Your task to perform on an android device: install app "Google Maps" Image 0: 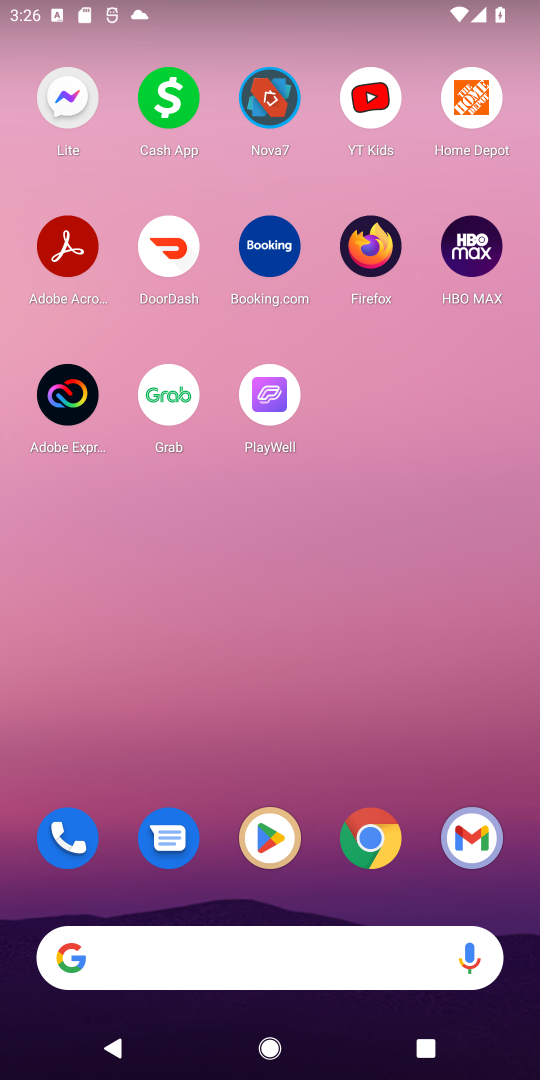
Step 0: click (311, 802)
Your task to perform on an android device: install app "Google Maps" Image 1: 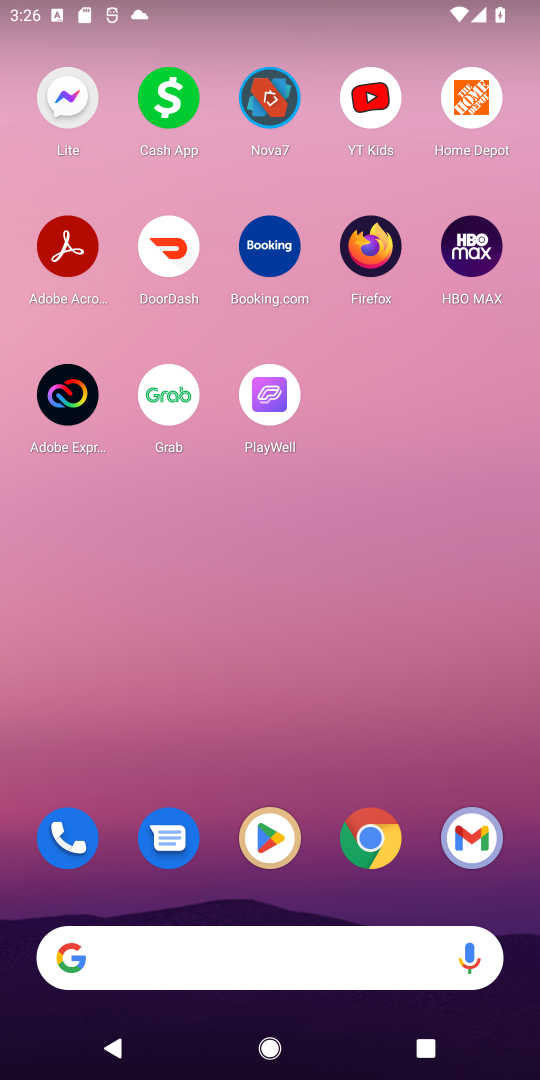
Step 1: click (279, 830)
Your task to perform on an android device: install app "Google Maps" Image 2: 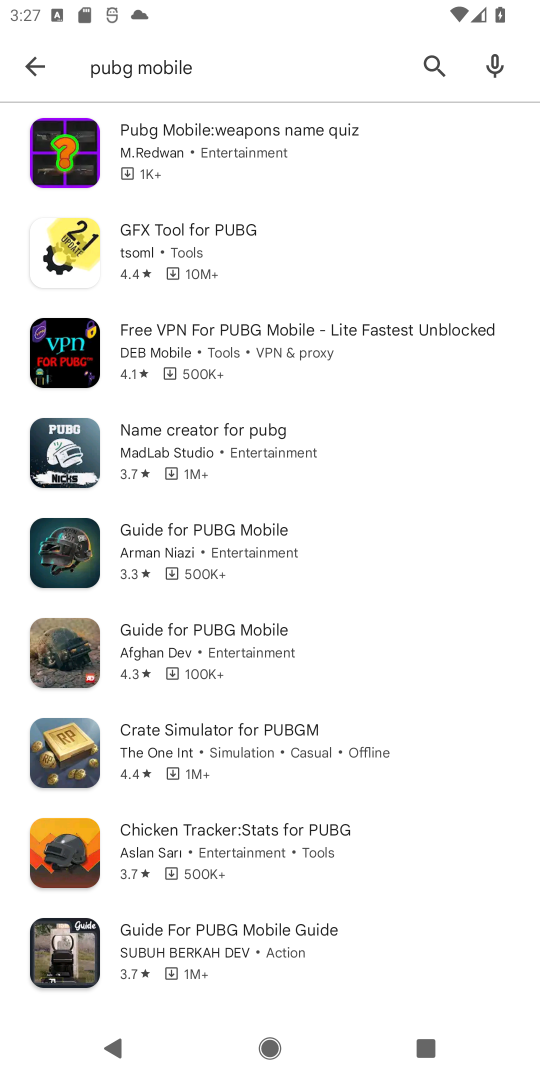
Step 2: click (36, 76)
Your task to perform on an android device: install app "Google Maps" Image 3: 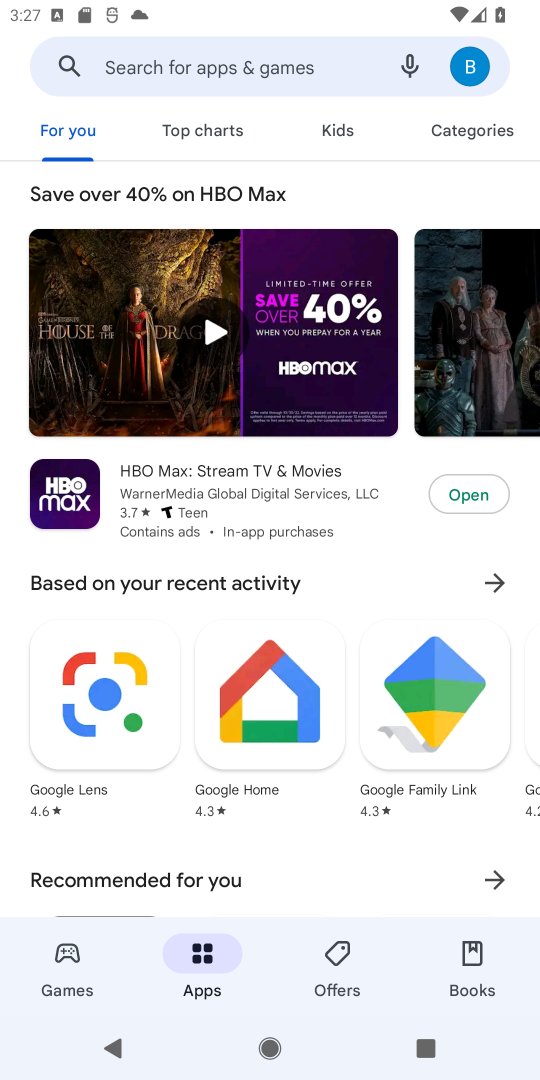
Step 3: click (152, 75)
Your task to perform on an android device: install app "Google Maps" Image 4: 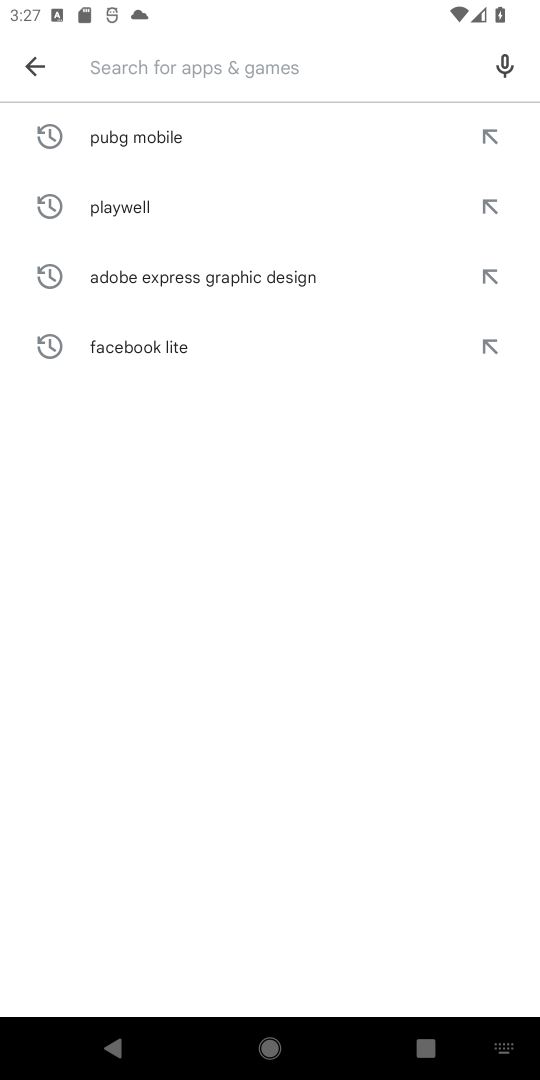
Step 4: type "Google Maps"
Your task to perform on an android device: install app "Google Maps" Image 5: 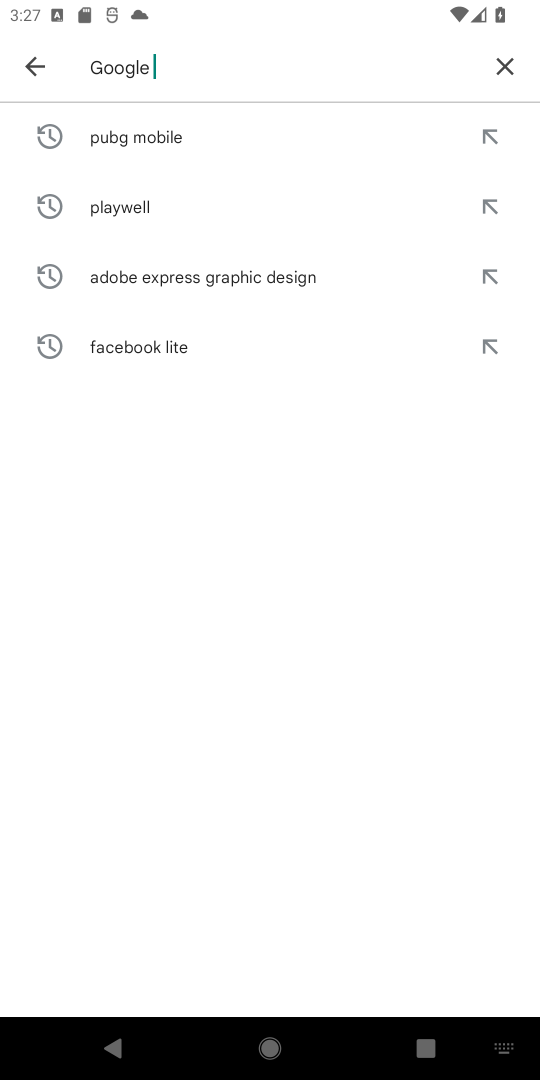
Step 5: type ""
Your task to perform on an android device: install app "Google Maps" Image 6: 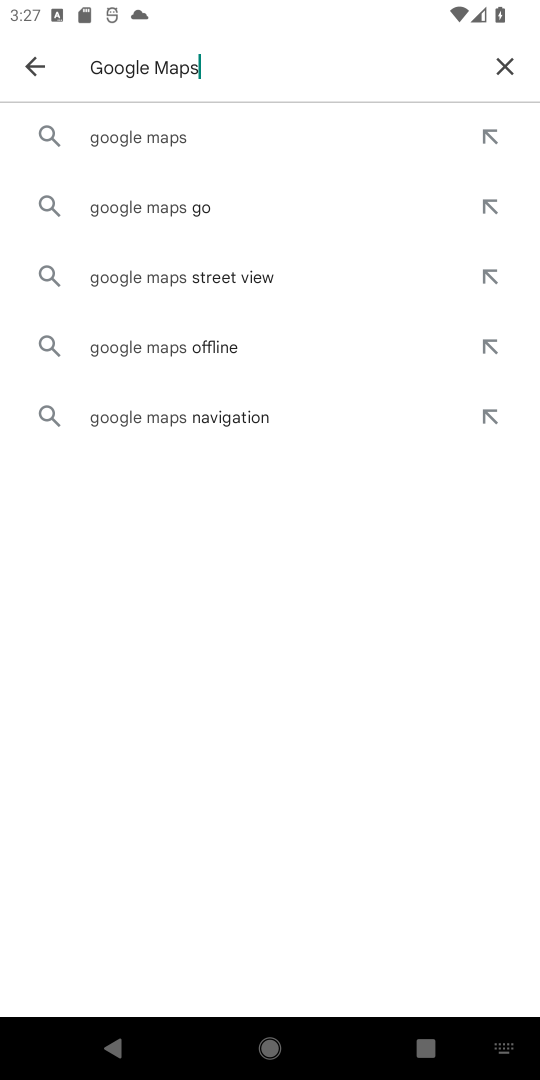
Step 6: click (125, 132)
Your task to perform on an android device: install app "Google Maps" Image 7: 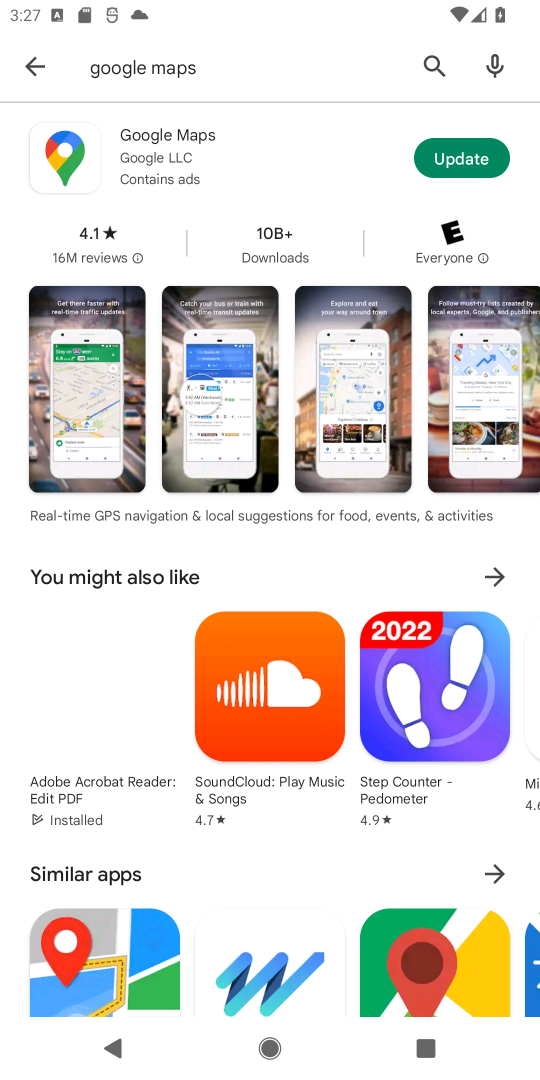
Step 7: click (456, 146)
Your task to perform on an android device: install app "Google Maps" Image 8: 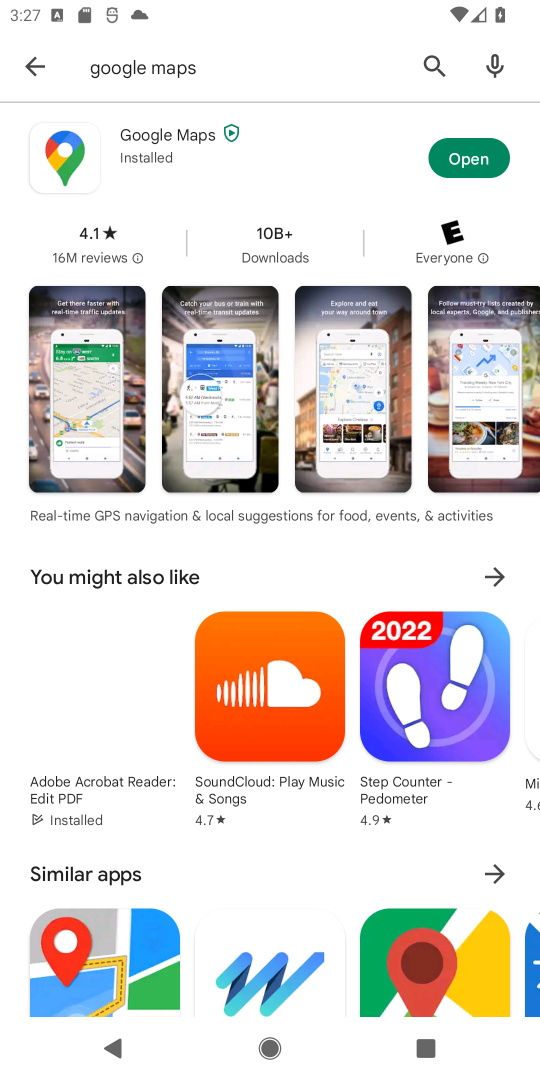
Step 8: click (474, 151)
Your task to perform on an android device: install app "Google Maps" Image 9: 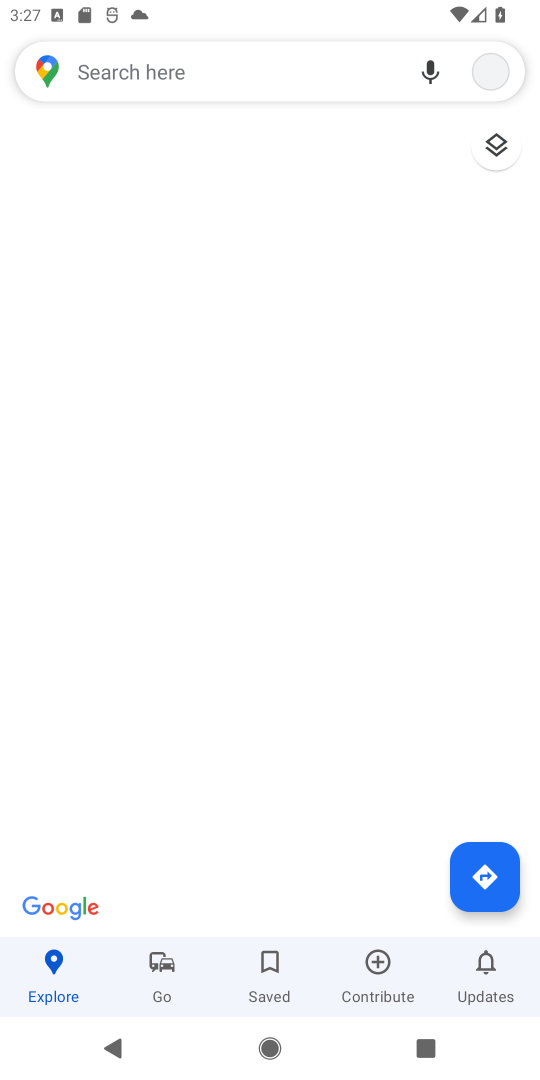
Step 9: task complete